Your task to perform on an android device: Open Google Chrome Image 0: 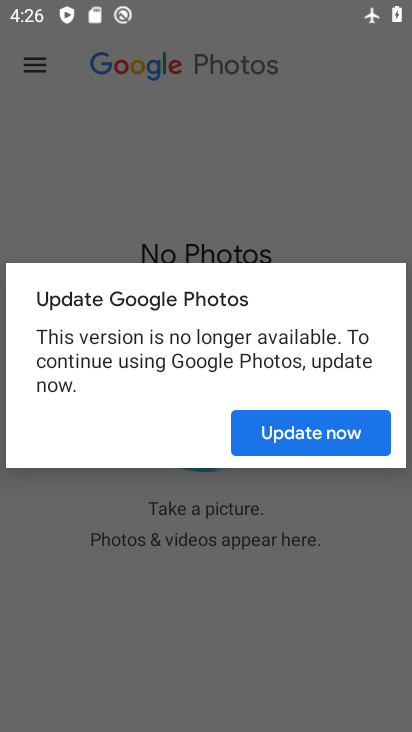
Step 0: press home button
Your task to perform on an android device: Open Google Chrome Image 1: 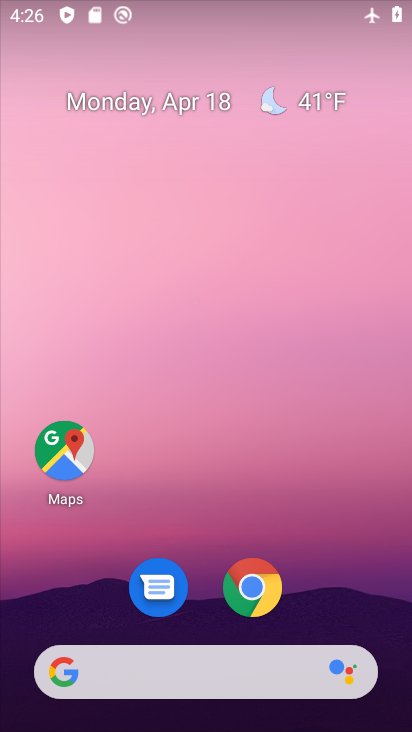
Step 1: drag from (266, 453) to (268, 332)
Your task to perform on an android device: Open Google Chrome Image 2: 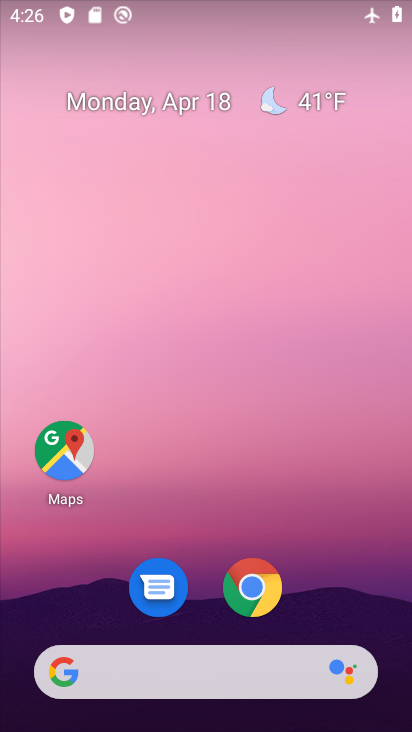
Step 2: drag from (257, 601) to (234, 308)
Your task to perform on an android device: Open Google Chrome Image 3: 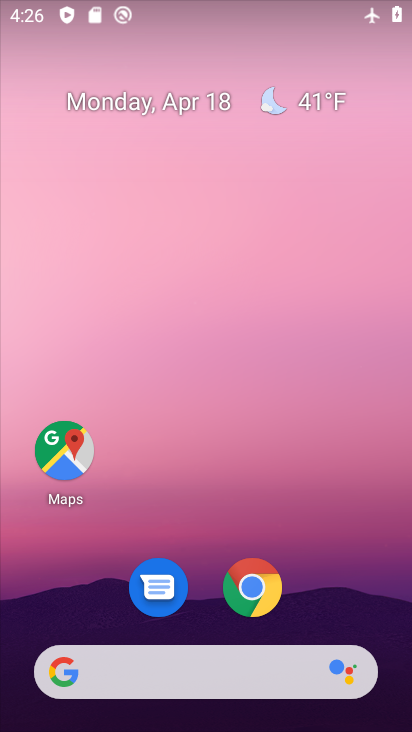
Step 3: click (262, 585)
Your task to perform on an android device: Open Google Chrome Image 4: 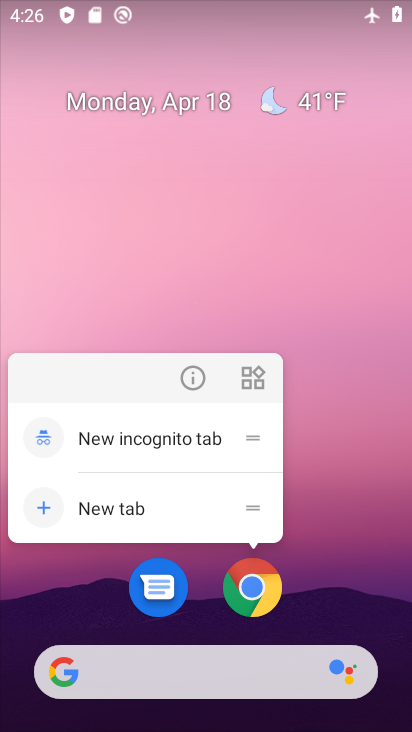
Step 4: click (262, 585)
Your task to perform on an android device: Open Google Chrome Image 5: 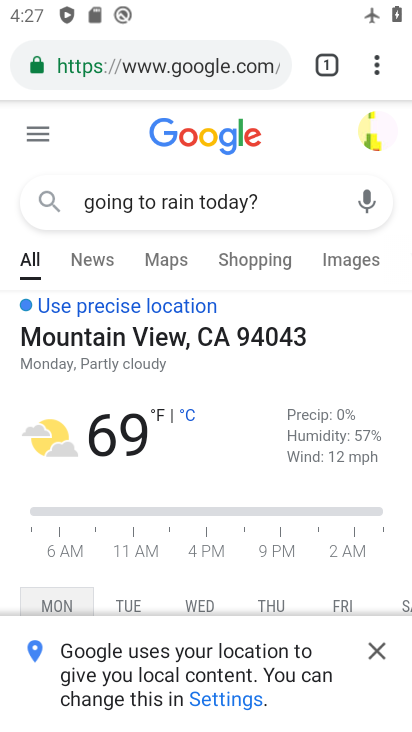
Step 5: task complete